Your task to perform on an android device: Open display settings Image 0: 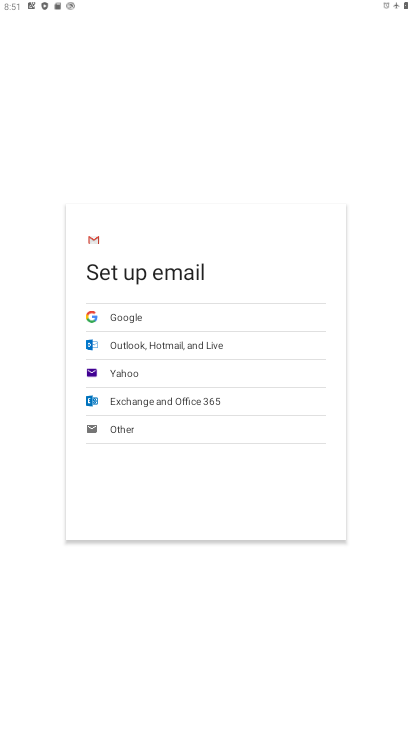
Step 0: press home button
Your task to perform on an android device: Open display settings Image 1: 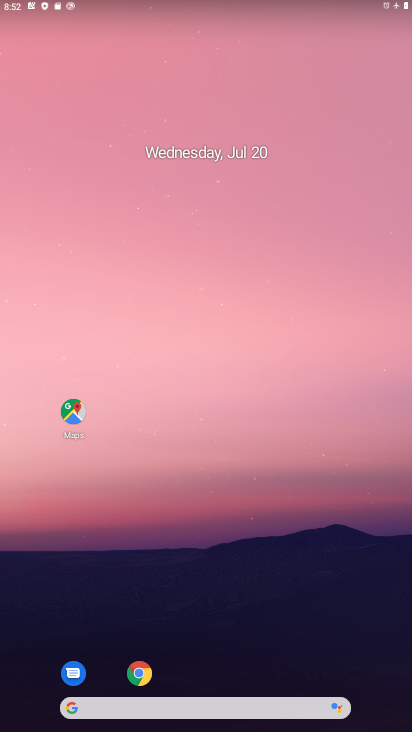
Step 1: drag from (221, 729) to (221, 305)
Your task to perform on an android device: Open display settings Image 2: 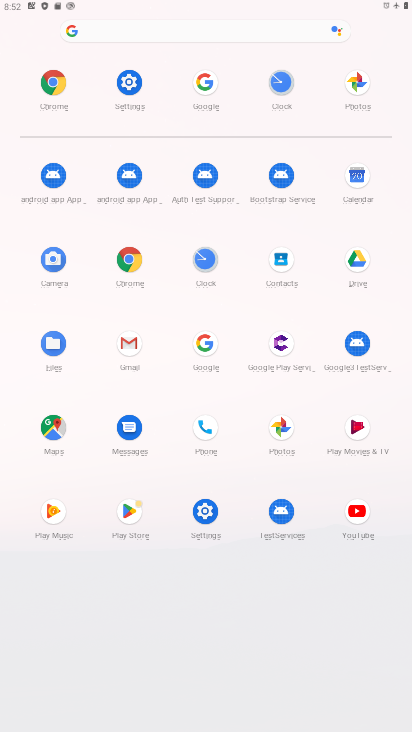
Step 2: click (204, 507)
Your task to perform on an android device: Open display settings Image 3: 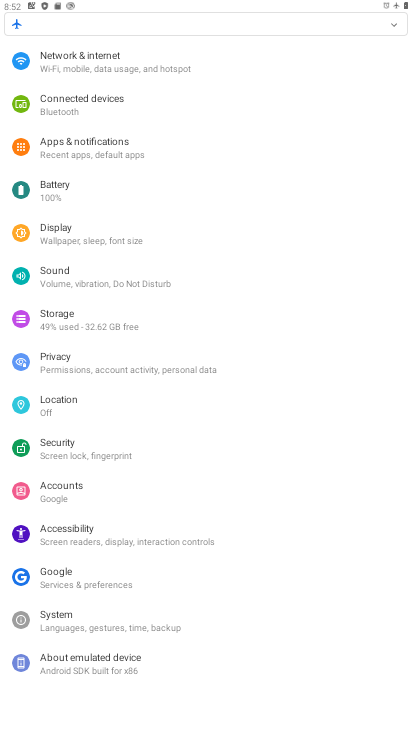
Step 3: click (84, 238)
Your task to perform on an android device: Open display settings Image 4: 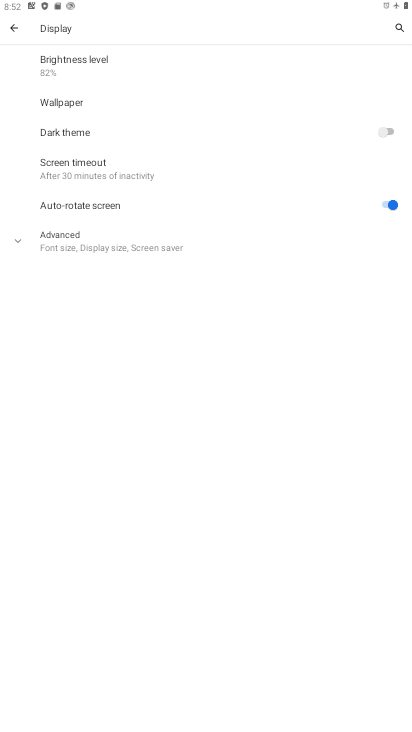
Step 4: task complete